Your task to perform on an android device: See recent photos Image 0: 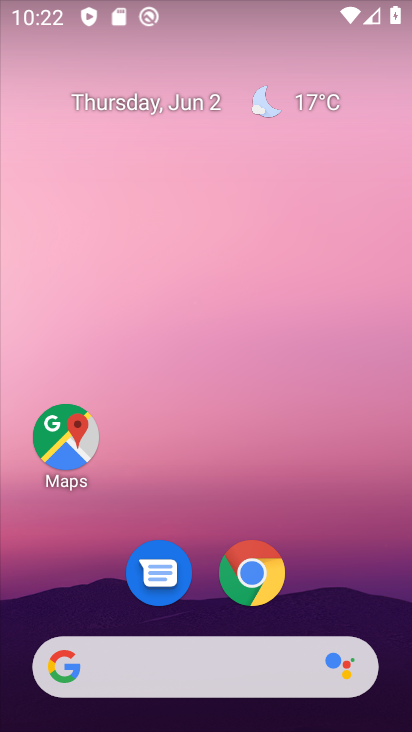
Step 0: task complete